Your task to perform on an android device: toggle location history Image 0: 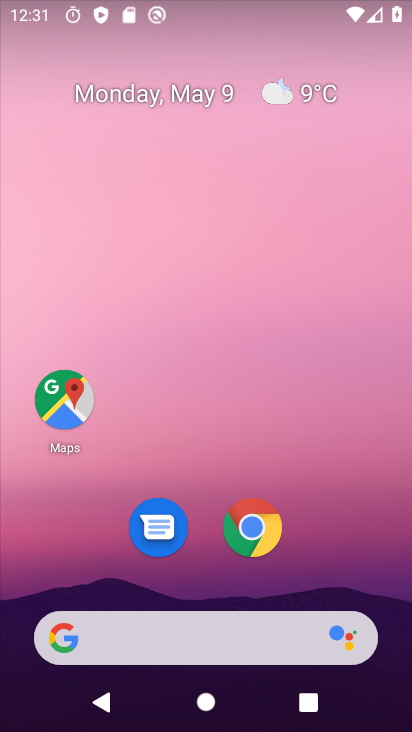
Step 0: drag from (208, 575) to (272, 16)
Your task to perform on an android device: toggle location history Image 1: 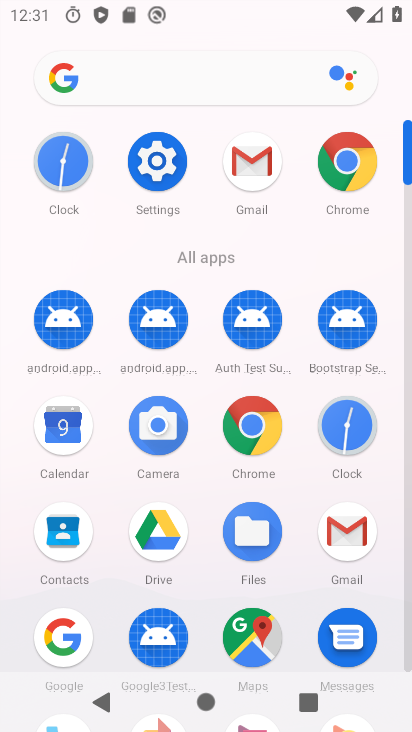
Step 1: click (166, 147)
Your task to perform on an android device: toggle location history Image 2: 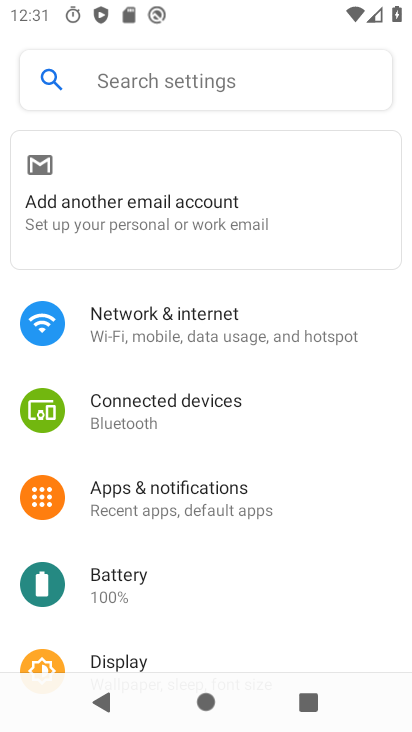
Step 2: drag from (181, 558) to (245, 53)
Your task to perform on an android device: toggle location history Image 3: 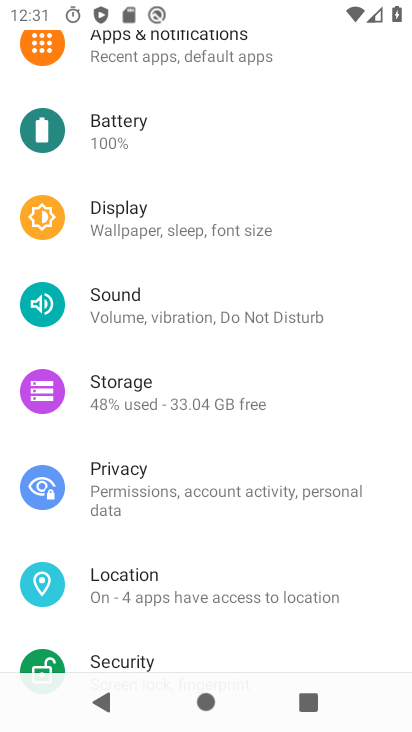
Step 3: click (147, 580)
Your task to perform on an android device: toggle location history Image 4: 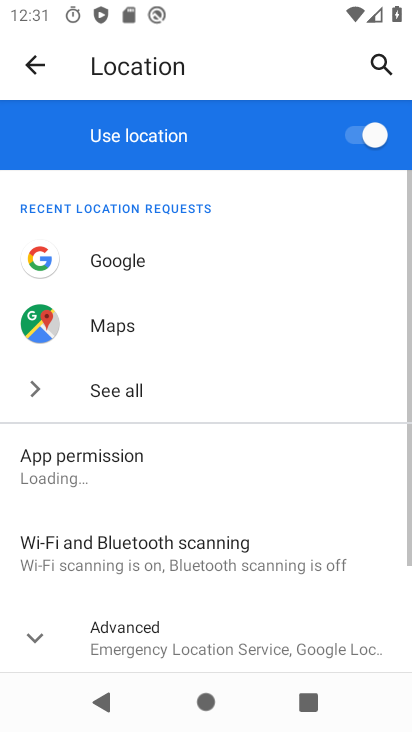
Step 4: drag from (131, 558) to (234, 111)
Your task to perform on an android device: toggle location history Image 5: 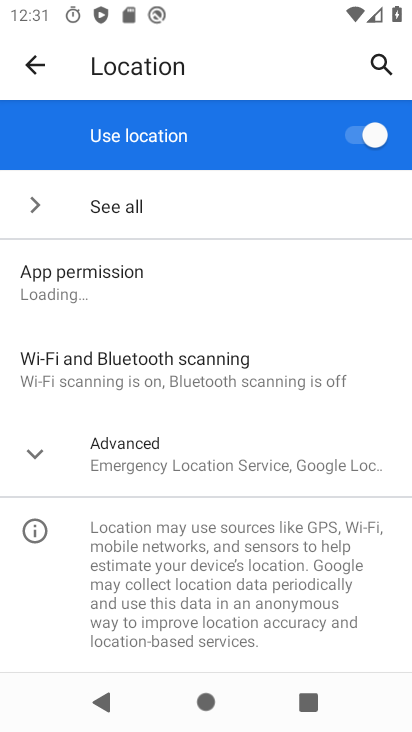
Step 5: click (142, 467)
Your task to perform on an android device: toggle location history Image 6: 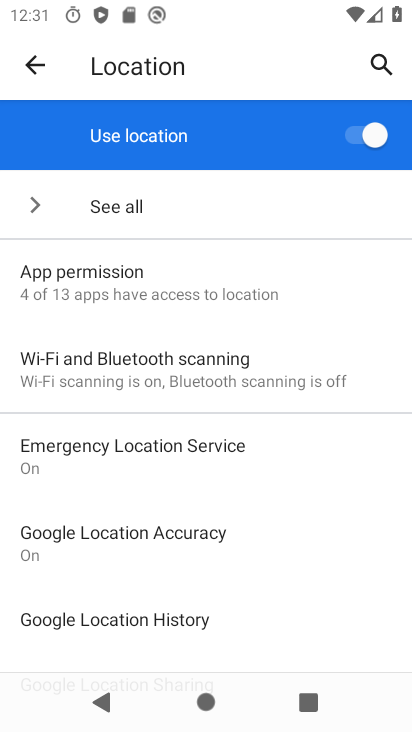
Step 6: click (112, 613)
Your task to perform on an android device: toggle location history Image 7: 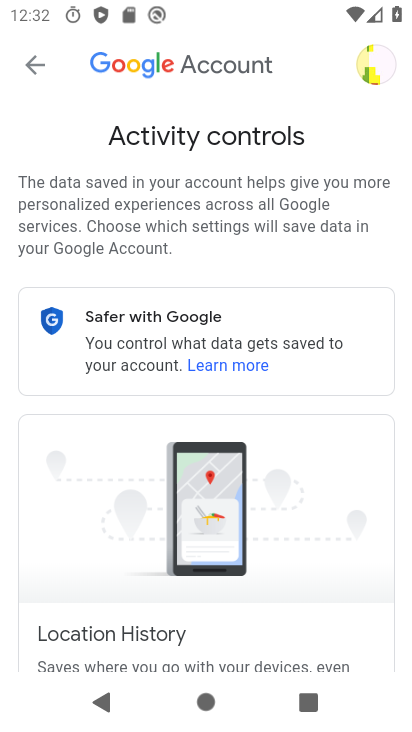
Step 7: drag from (205, 532) to (260, 30)
Your task to perform on an android device: toggle location history Image 8: 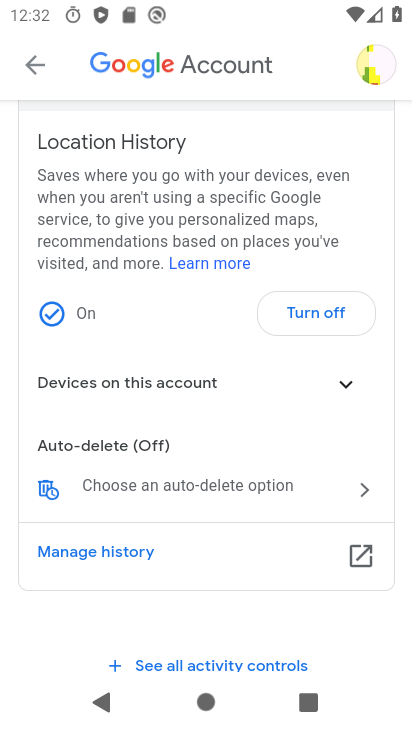
Step 8: click (325, 316)
Your task to perform on an android device: toggle location history Image 9: 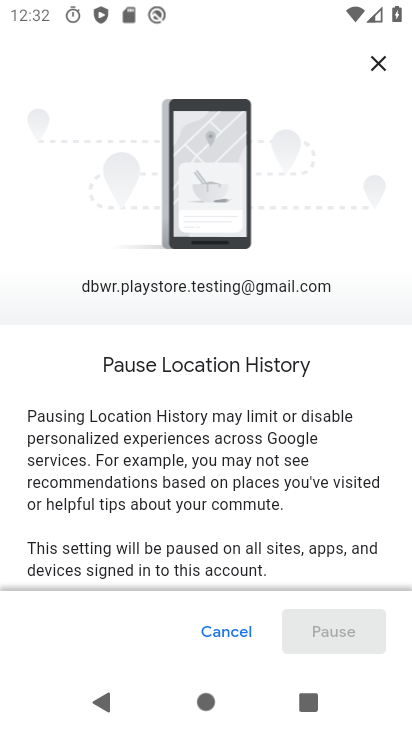
Step 9: drag from (202, 555) to (242, 30)
Your task to perform on an android device: toggle location history Image 10: 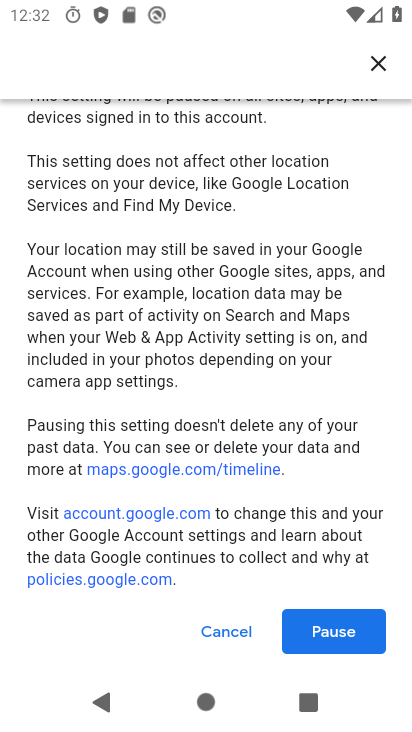
Step 10: drag from (184, 566) to (236, 193)
Your task to perform on an android device: toggle location history Image 11: 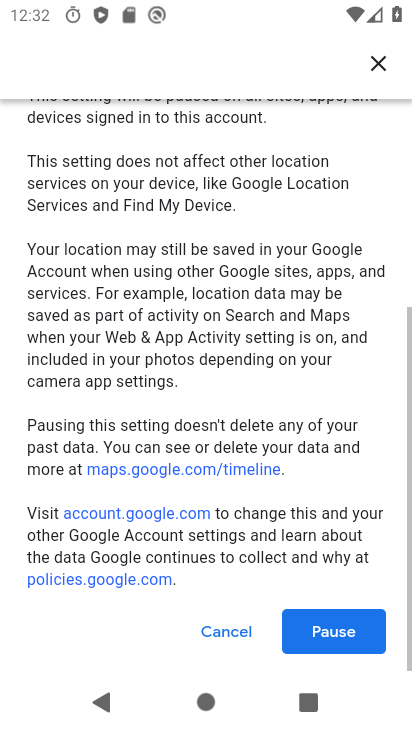
Step 11: click (338, 630)
Your task to perform on an android device: toggle location history Image 12: 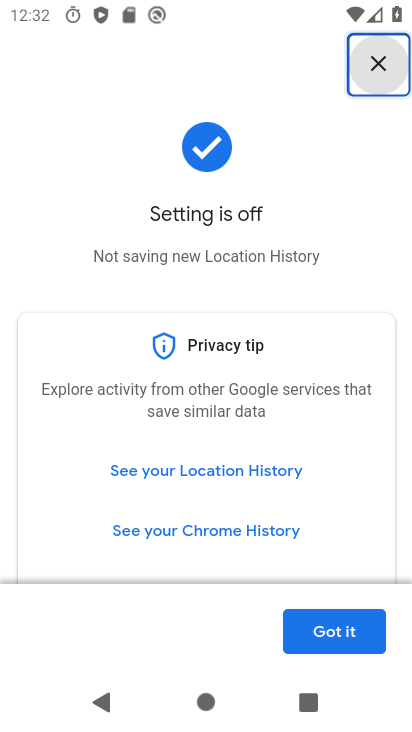
Step 12: click (326, 614)
Your task to perform on an android device: toggle location history Image 13: 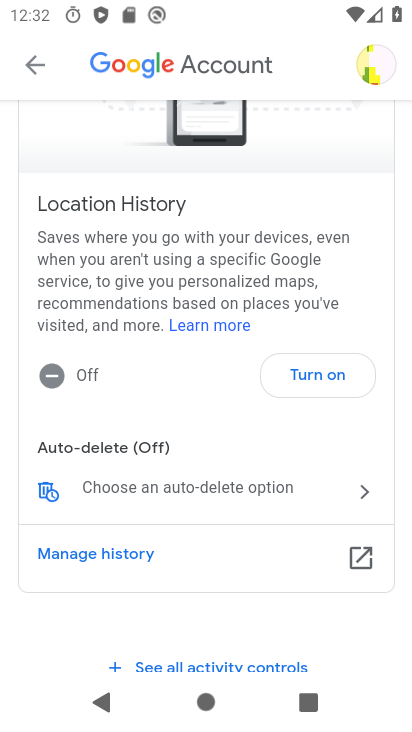
Step 13: task complete